Your task to perform on an android device: Open my contact list Image 0: 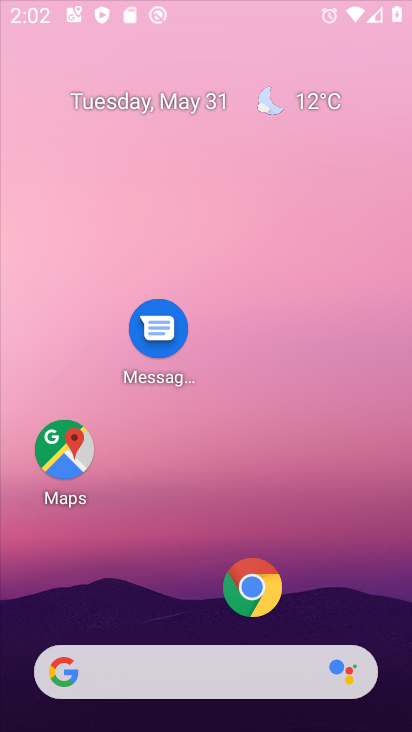
Step 0: click (310, 0)
Your task to perform on an android device: Open my contact list Image 1: 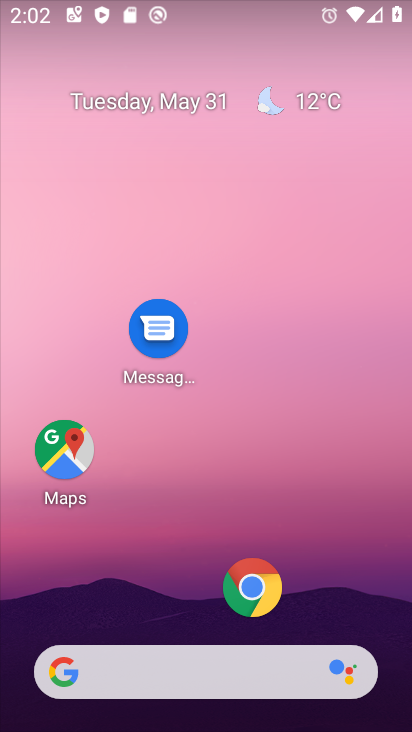
Step 1: drag from (214, 571) to (228, 48)
Your task to perform on an android device: Open my contact list Image 2: 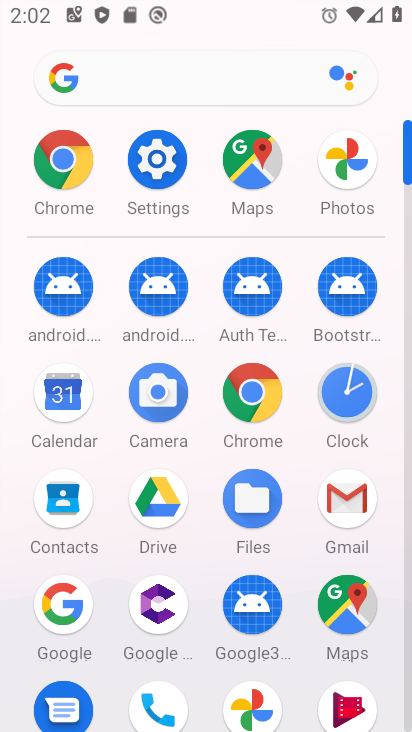
Step 2: click (56, 518)
Your task to perform on an android device: Open my contact list Image 3: 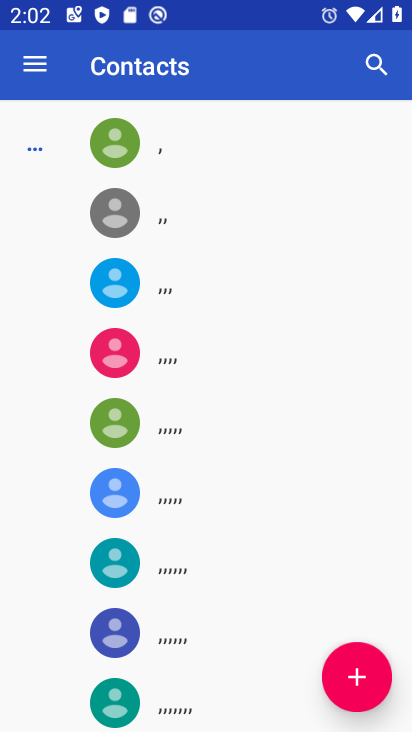
Step 3: task complete